Your task to perform on an android device: What's on my calendar tomorrow? Image 0: 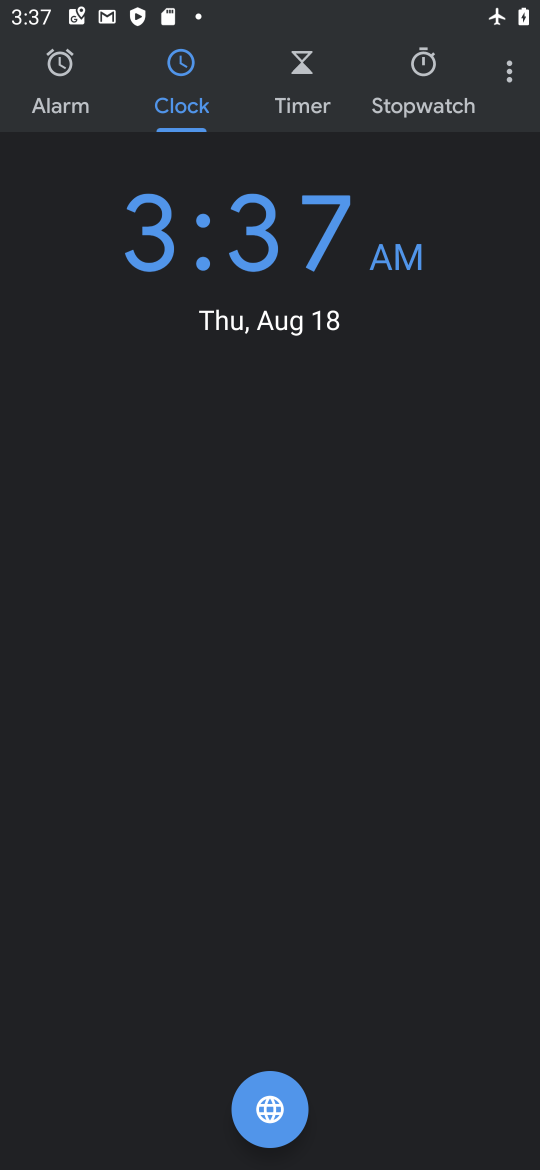
Step 0: press home button
Your task to perform on an android device: What's on my calendar tomorrow? Image 1: 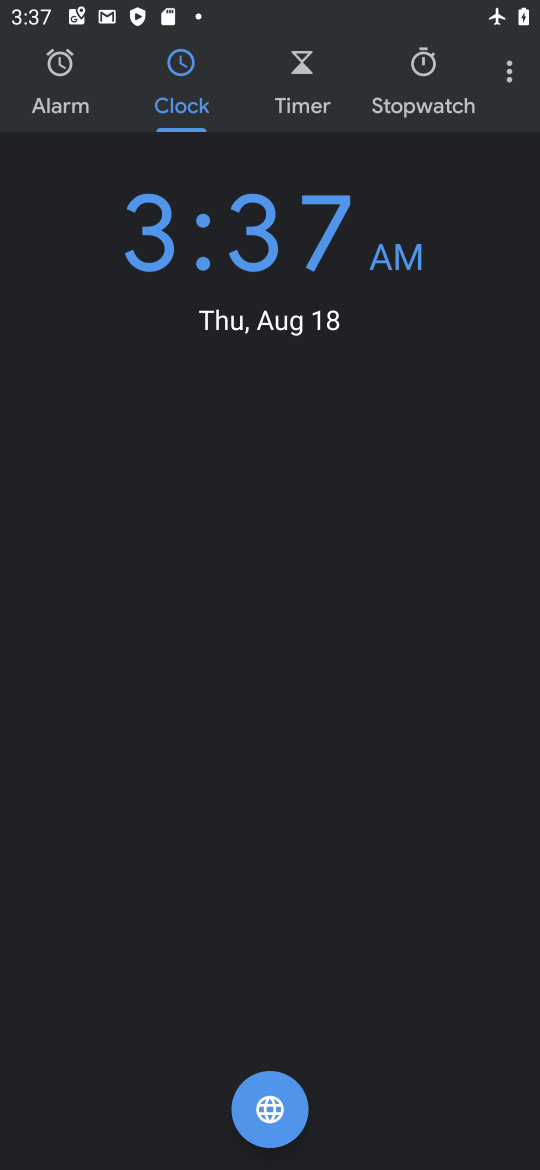
Step 1: press home button
Your task to perform on an android device: What's on my calendar tomorrow? Image 2: 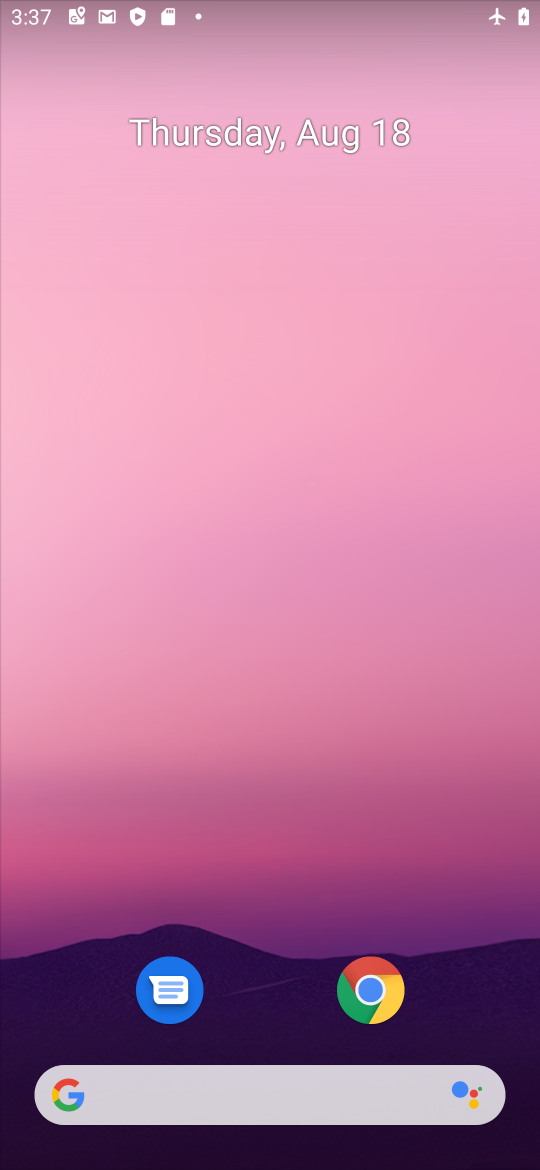
Step 2: drag from (277, 890) to (242, 980)
Your task to perform on an android device: What's on my calendar tomorrow? Image 3: 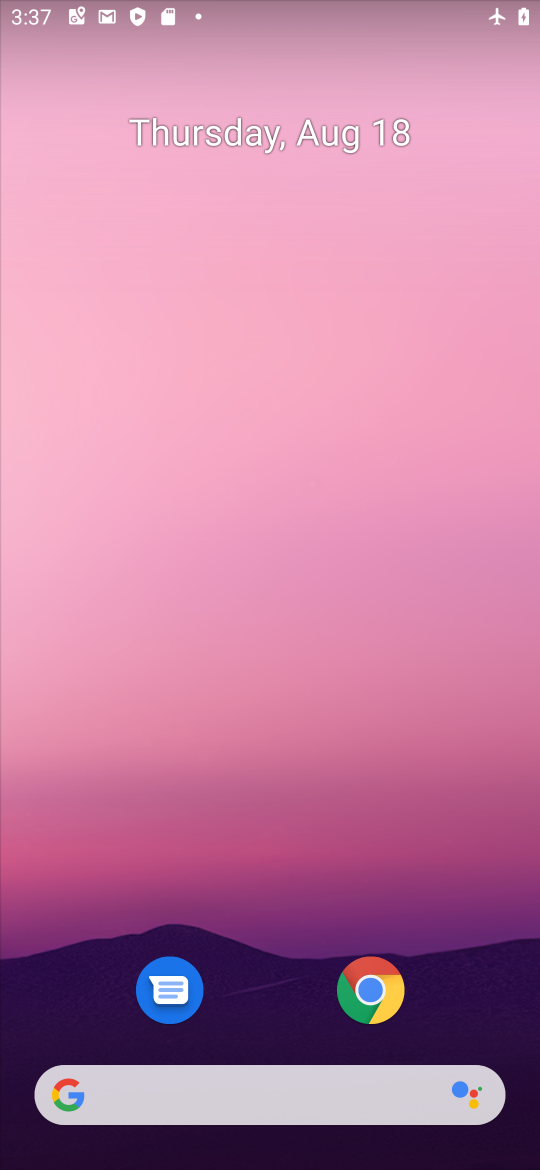
Step 3: click (279, 142)
Your task to perform on an android device: What's on my calendar tomorrow? Image 4: 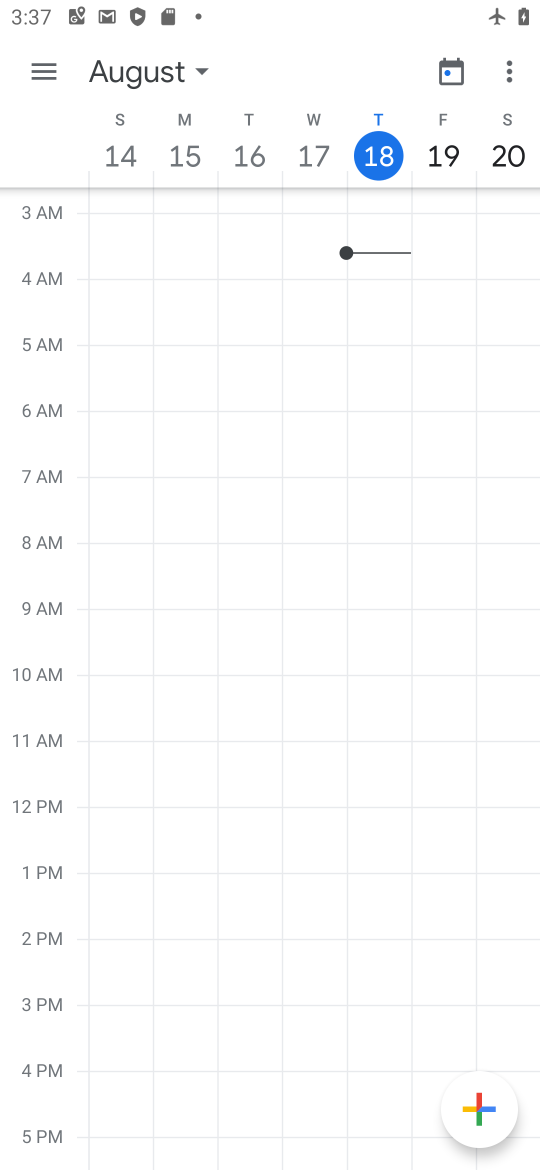
Step 4: click (452, 149)
Your task to perform on an android device: What's on my calendar tomorrow? Image 5: 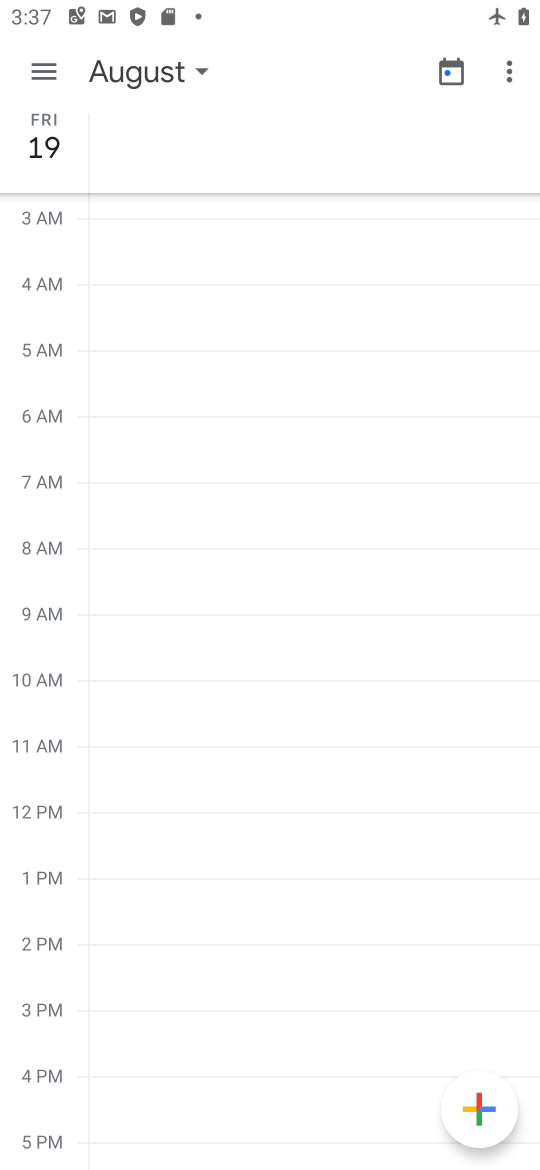
Step 5: task complete